Your task to perform on an android device: delete the emails in spam in the gmail app Image 0: 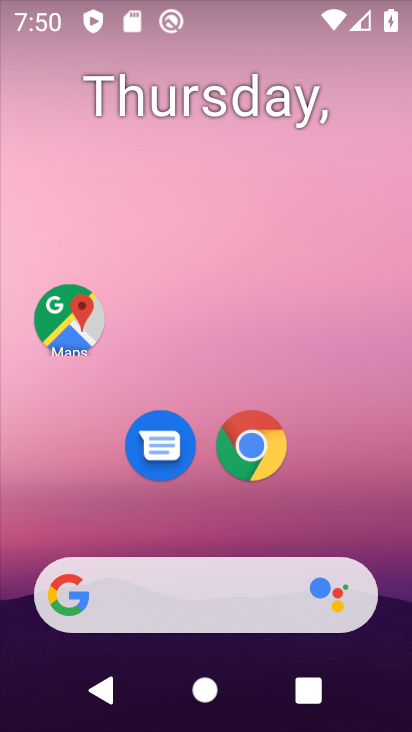
Step 0: drag from (345, 514) to (335, 2)
Your task to perform on an android device: delete the emails in spam in the gmail app Image 1: 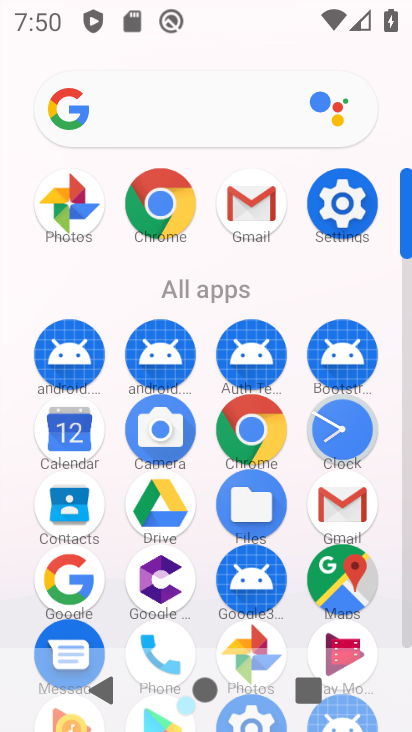
Step 1: click (257, 213)
Your task to perform on an android device: delete the emails in spam in the gmail app Image 2: 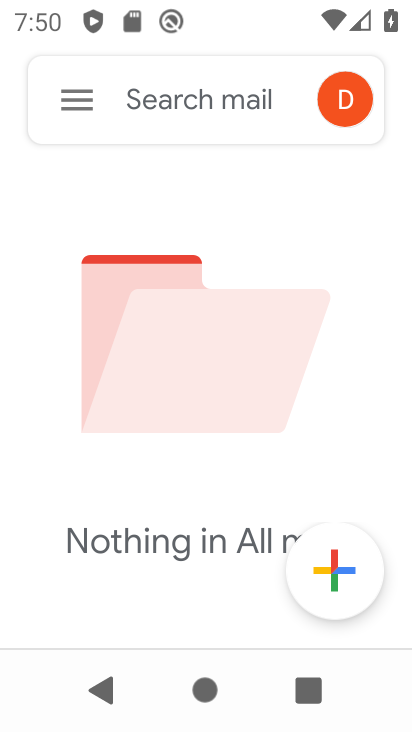
Step 2: click (80, 98)
Your task to perform on an android device: delete the emails in spam in the gmail app Image 3: 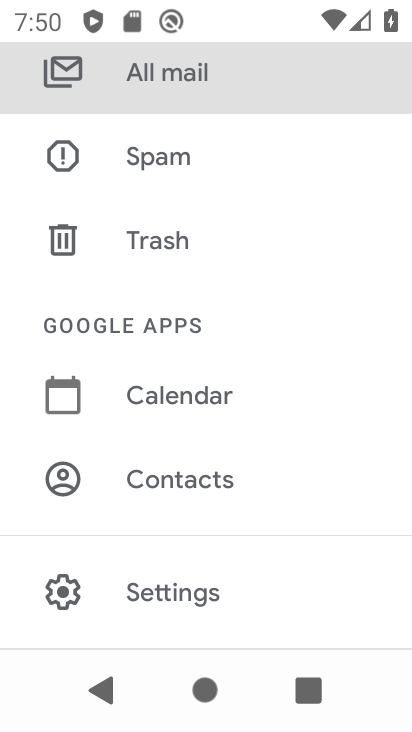
Step 3: click (161, 156)
Your task to perform on an android device: delete the emails in spam in the gmail app Image 4: 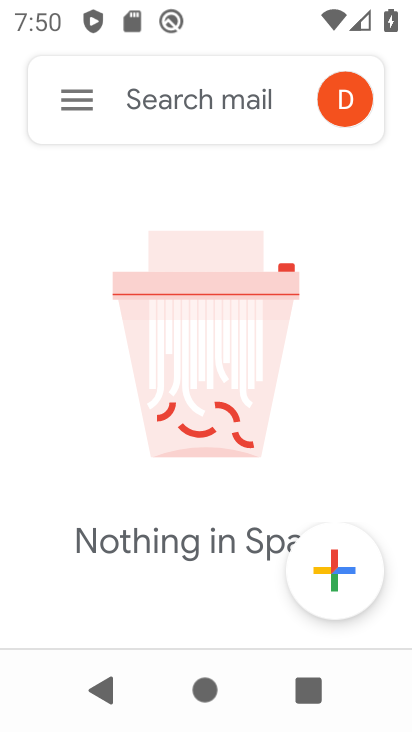
Step 4: task complete